Your task to perform on an android device: Go to Amazon Image 0: 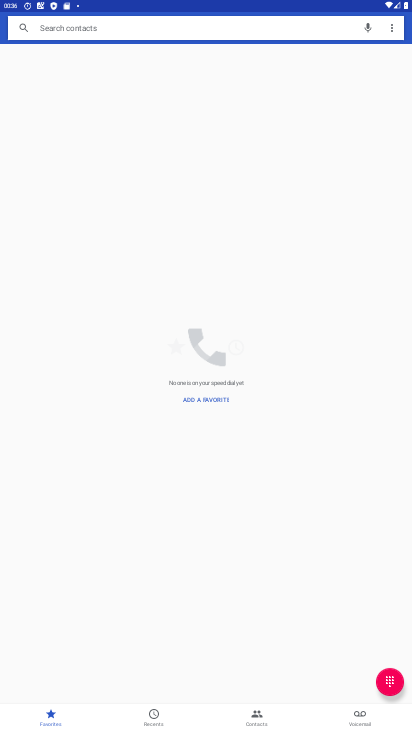
Step 0: press home button
Your task to perform on an android device: Go to Amazon Image 1: 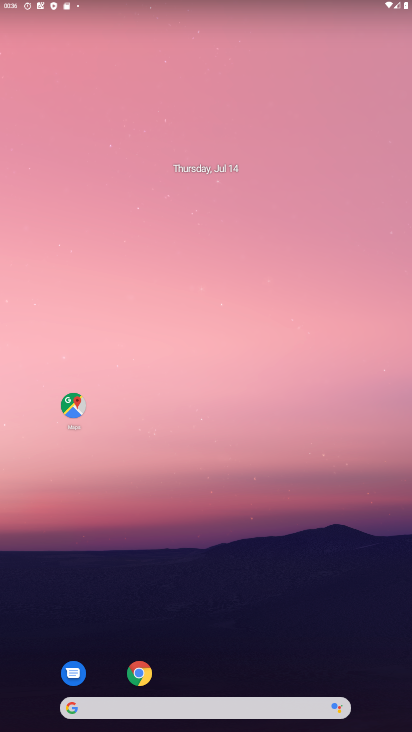
Step 1: click (141, 679)
Your task to perform on an android device: Go to Amazon Image 2: 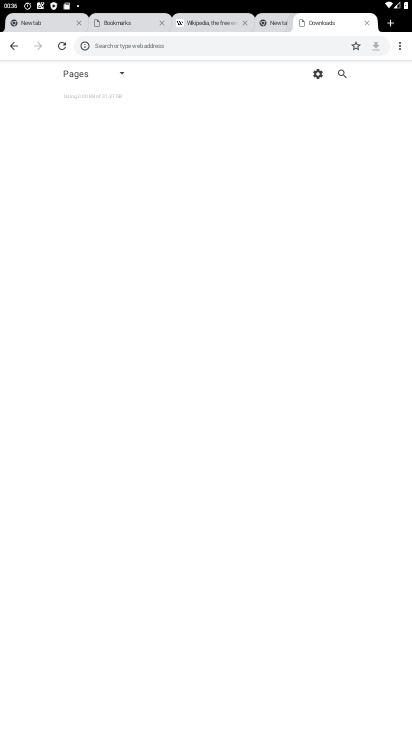
Step 2: click (386, 23)
Your task to perform on an android device: Go to Amazon Image 3: 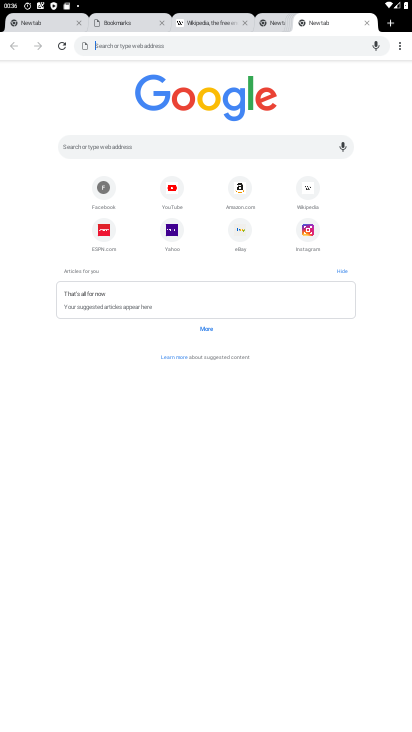
Step 3: click (396, 51)
Your task to perform on an android device: Go to Amazon Image 4: 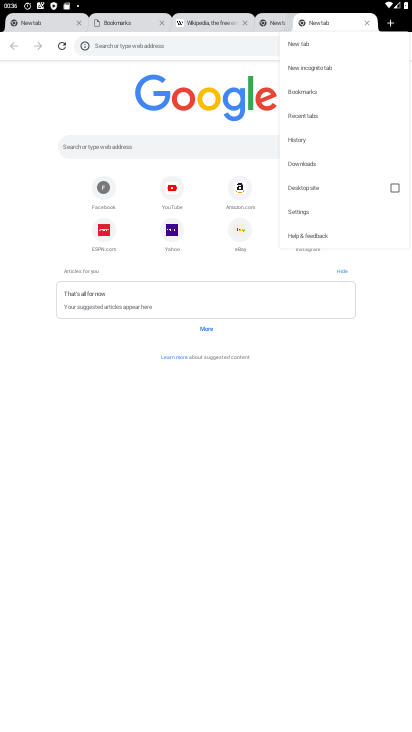
Step 4: click (260, 381)
Your task to perform on an android device: Go to Amazon Image 5: 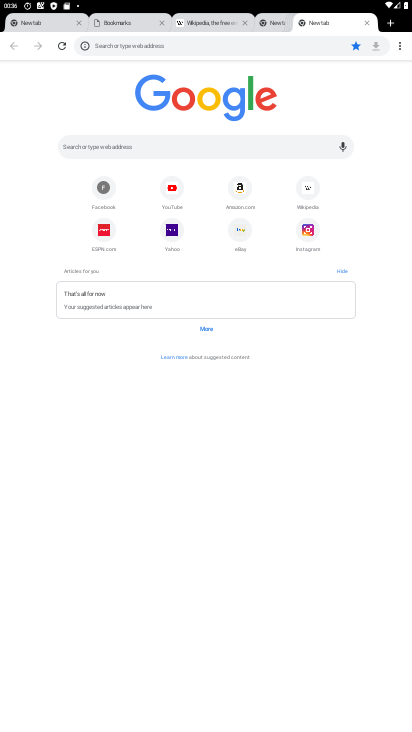
Step 5: click (240, 175)
Your task to perform on an android device: Go to Amazon Image 6: 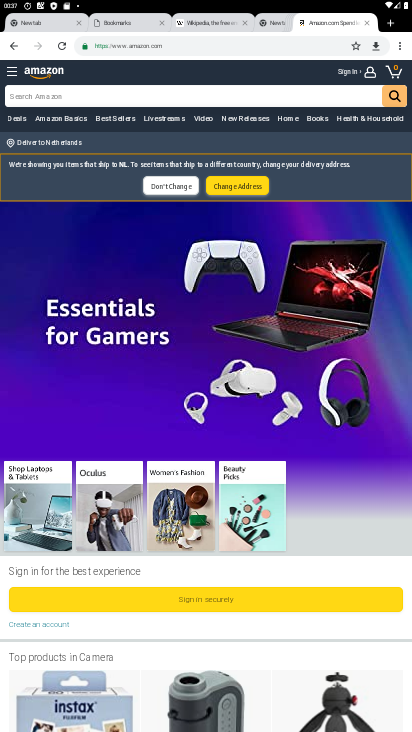
Step 6: task complete